Your task to perform on an android device: find photos in the google photos app Image 0: 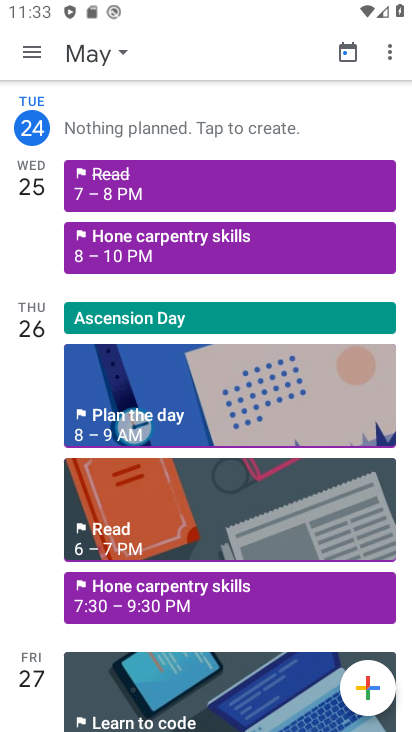
Step 0: press home button
Your task to perform on an android device: find photos in the google photos app Image 1: 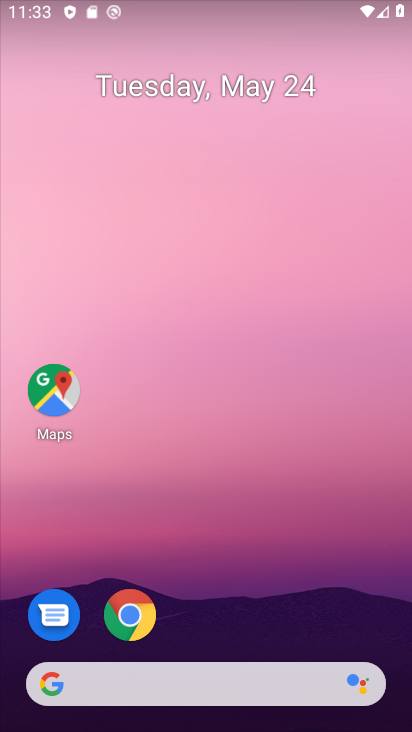
Step 1: drag from (276, 583) to (207, 63)
Your task to perform on an android device: find photos in the google photos app Image 2: 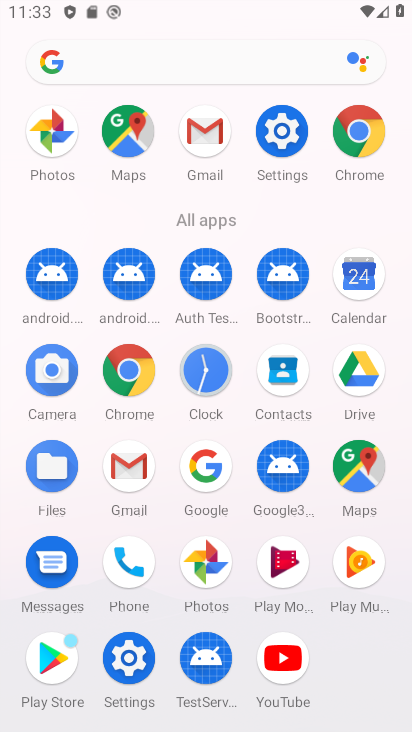
Step 2: click (52, 131)
Your task to perform on an android device: find photos in the google photos app Image 3: 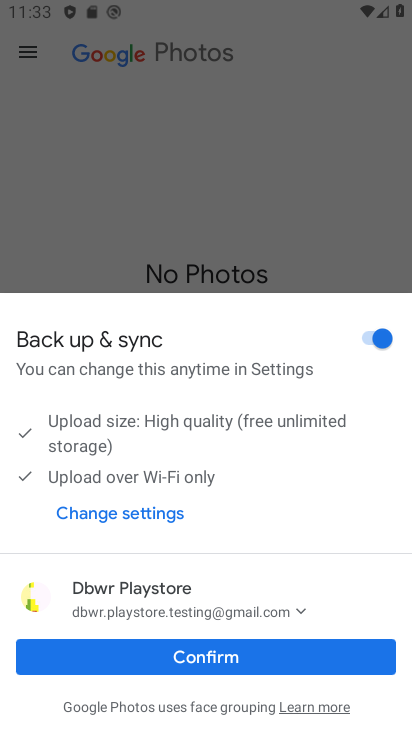
Step 3: click (193, 653)
Your task to perform on an android device: find photos in the google photos app Image 4: 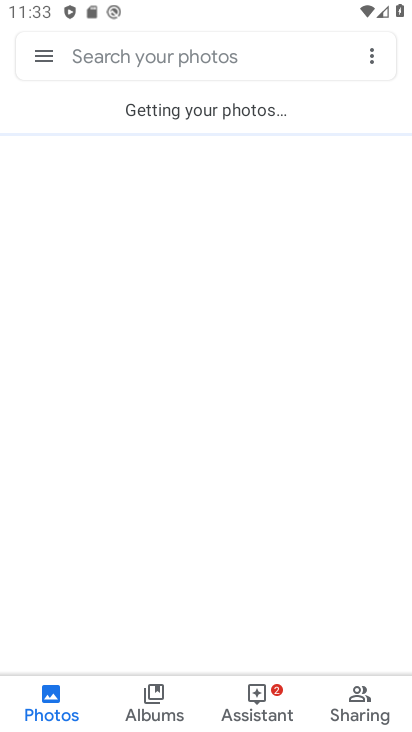
Step 4: click (148, 691)
Your task to perform on an android device: find photos in the google photos app Image 5: 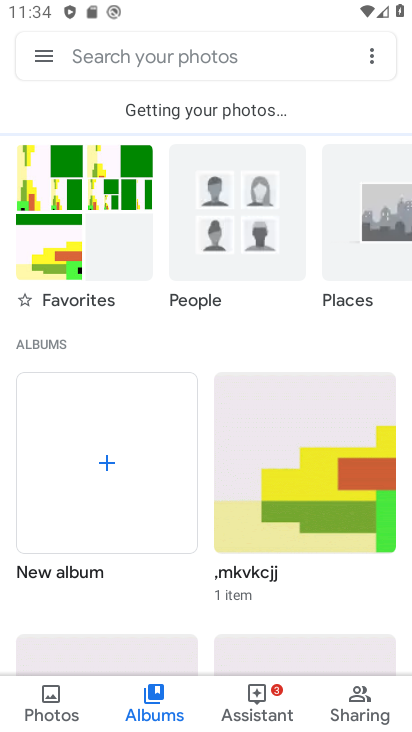
Step 5: click (114, 196)
Your task to perform on an android device: find photos in the google photos app Image 6: 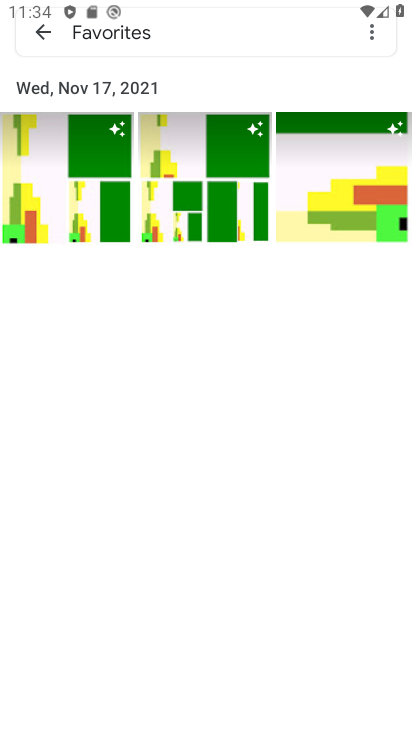
Step 6: task complete